Your task to perform on an android device: toggle location history Image 0: 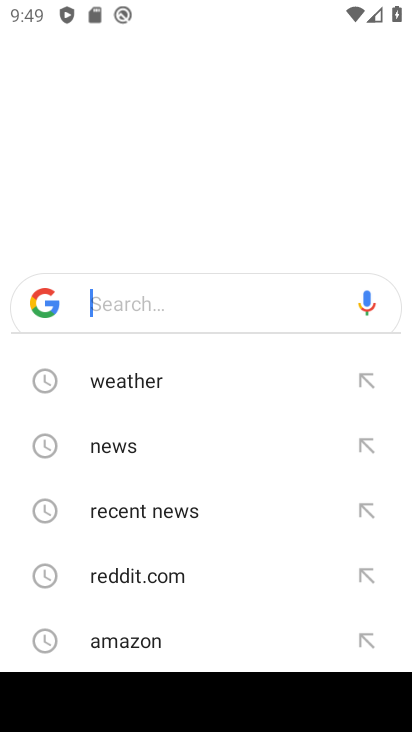
Step 0: press home button
Your task to perform on an android device: toggle location history Image 1: 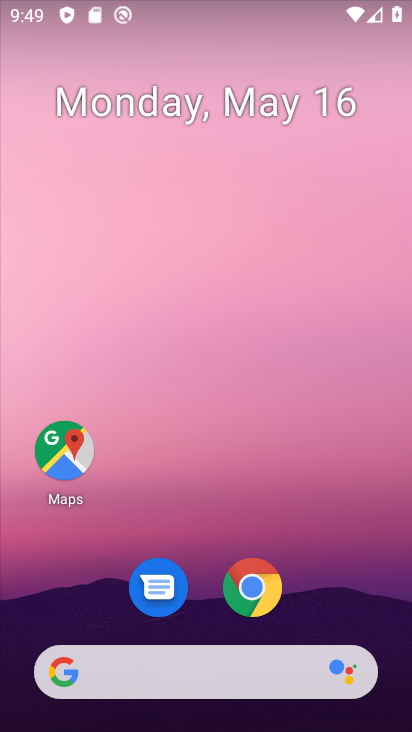
Step 1: drag from (281, 623) to (268, 195)
Your task to perform on an android device: toggle location history Image 2: 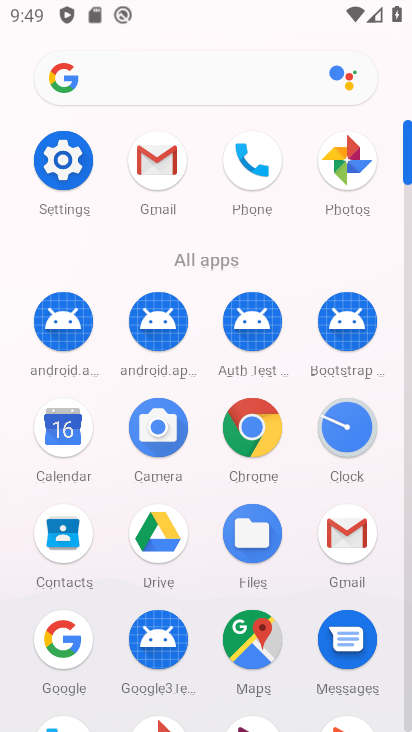
Step 2: click (57, 158)
Your task to perform on an android device: toggle location history Image 3: 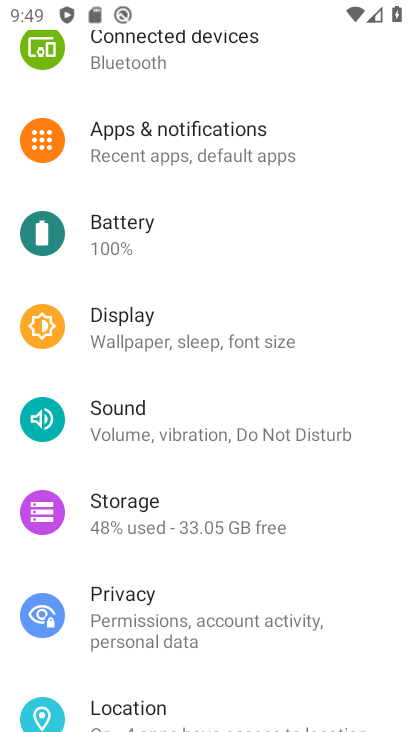
Step 3: drag from (116, 246) to (70, 202)
Your task to perform on an android device: toggle location history Image 4: 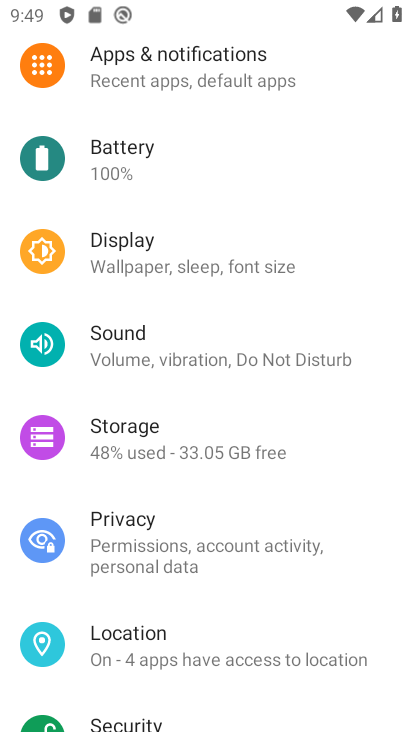
Step 4: click (140, 624)
Your task to perform on an android device: toggle location history Image 5: 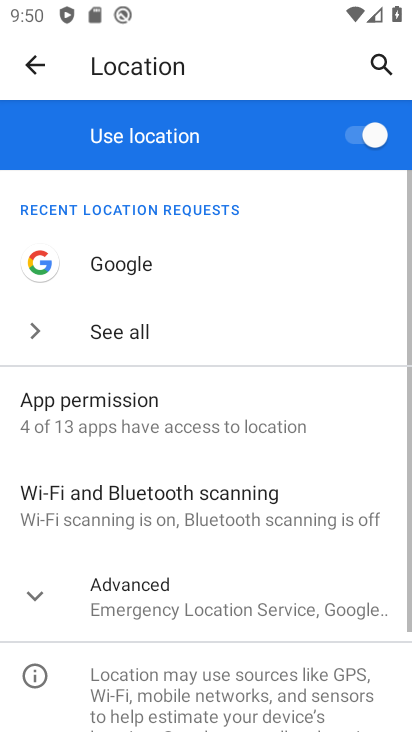
Step 5: click (140, 577)
Your task to perform on an android device: toggle location history Image 6: 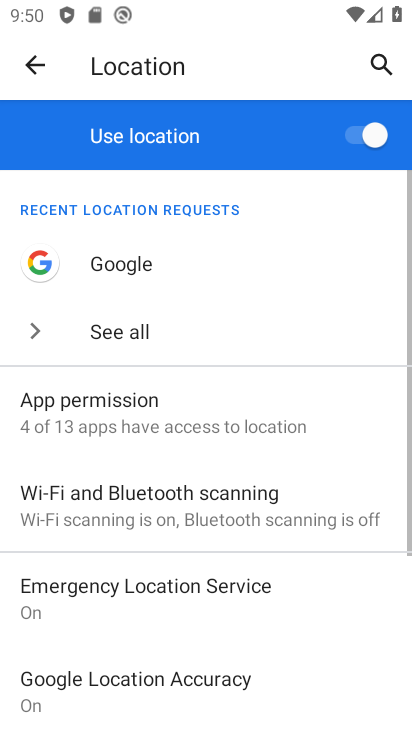
Step 6: drag from (136, 578) to (76, 325)
Your task to perform on an android device: toggle location history Image 7: 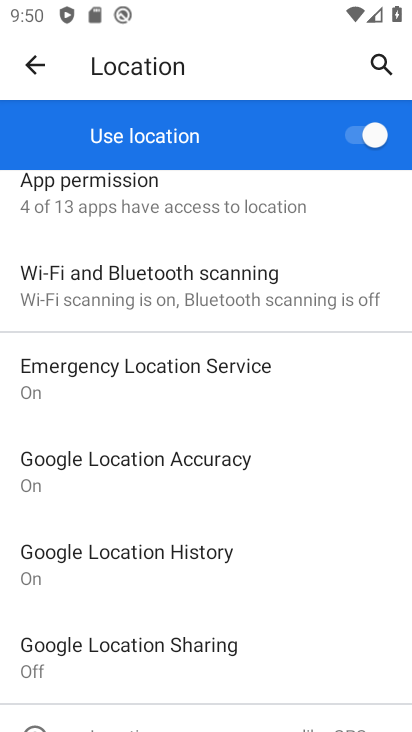
Step 7: click (109, 521)
Your task to perform on an android device: toggle location history Image 8: 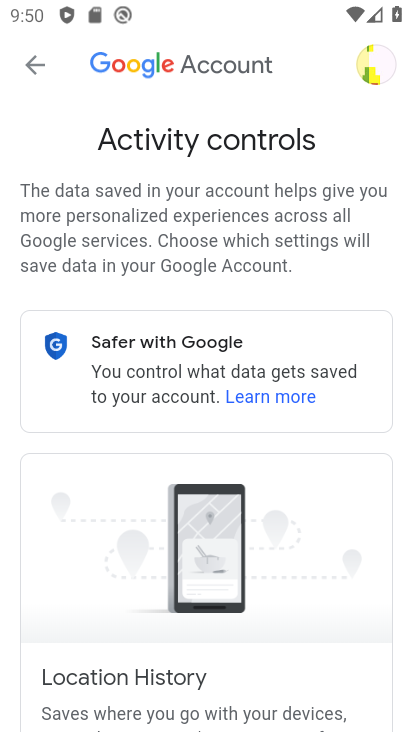
Step 8: drag from (289, 567) to (148, 4)
Your task to perform on an android device: toggle location history Image 9: 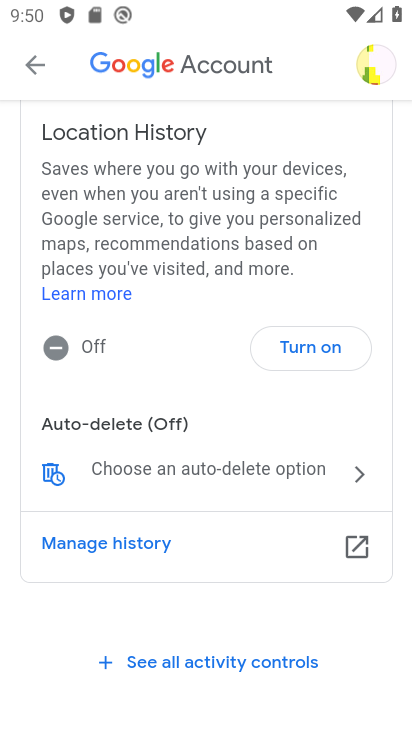
Step 9: click (281, 362)
Your task to perform on an android device: toggle location history Image 10: 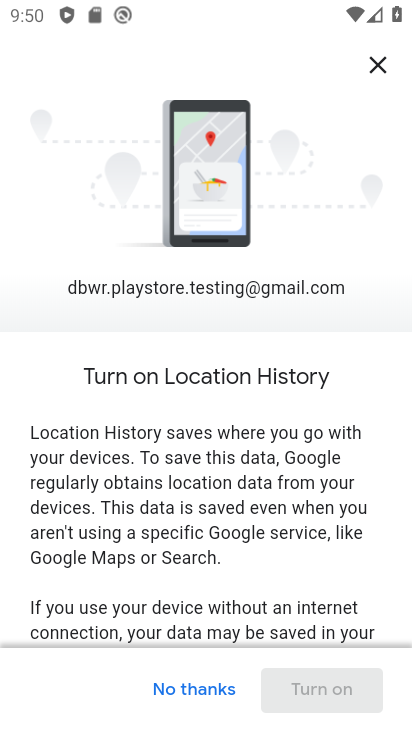
Step 10: drag from (296, 476) to (235, 68)
Your task to perform on an android device: toggle location history Image 11: 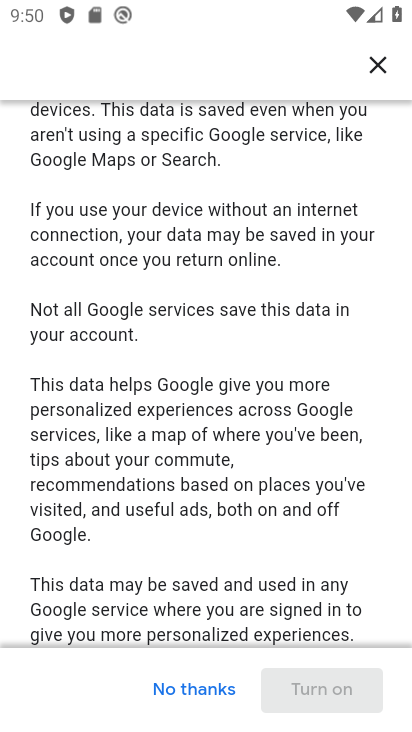
Step 11: drag from (302, 544) to (244, 113)
Your task to perform on an android device: toggle location history Image 12: 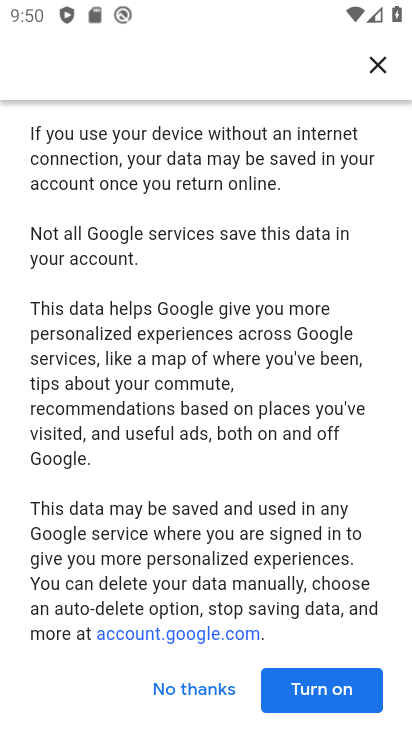
Step 12: click (320, 681)
Your task to perform on an android device: toggle location history Image 13: 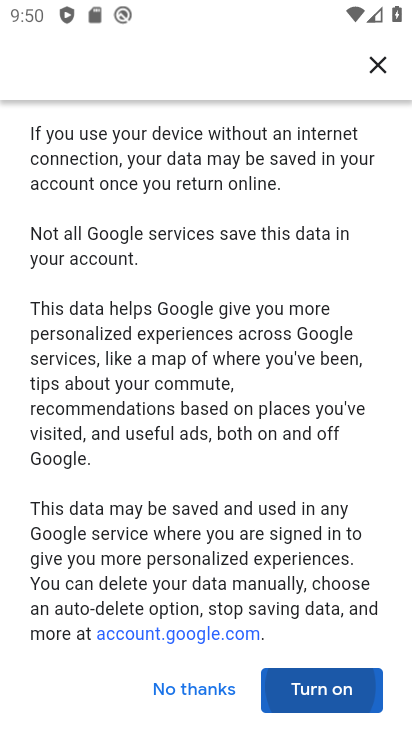
Step 13: task complete